Your task to perform on an android device: find which apps use the phone's location Image 0: 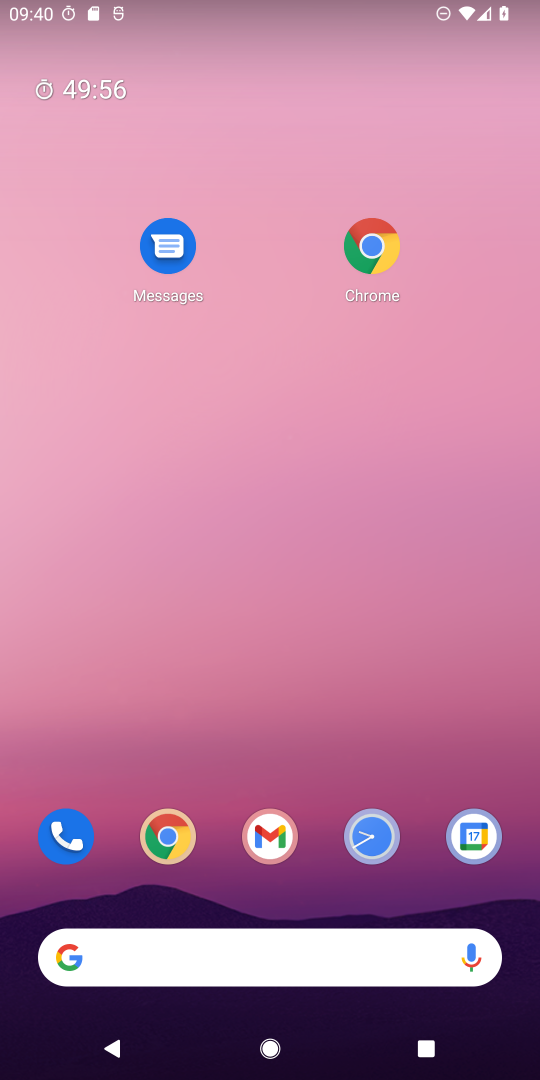
Step 0: drag from (259, 895) to (273, 305)
Your task to perform on an android device: find which apps use the phone's location Image 1: 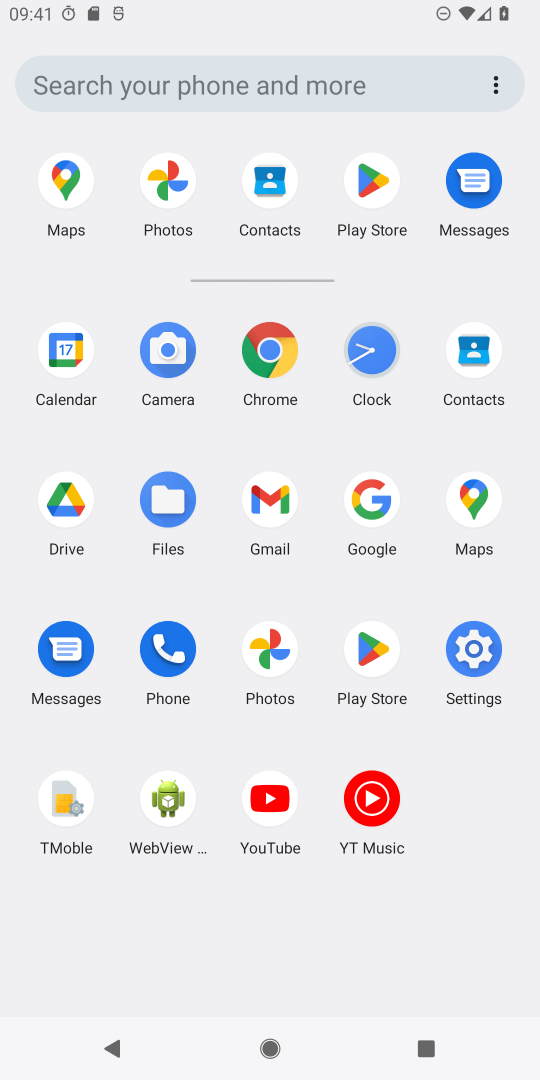
Step 1: click (480, 651)
Your task to perform on an android device: find which apps use the phone's location Image 2: 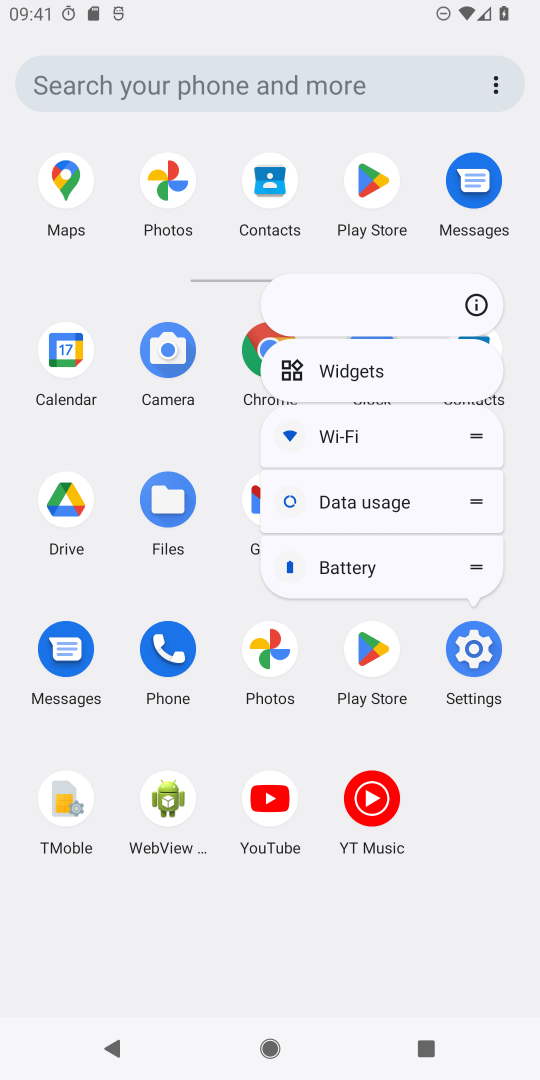
Step 2: click (480, 651)
Your task to perform on an android device: find which apps use the phone's location Image 3: 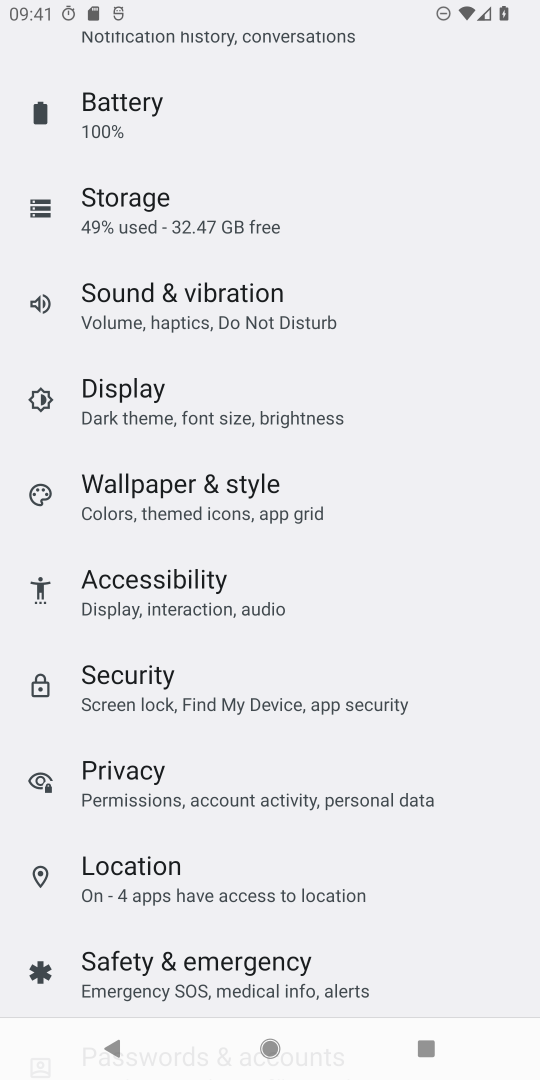
Step 3: click (208, 880)
Your task to perform on an android device: find which apps use the phone's location Image 4: 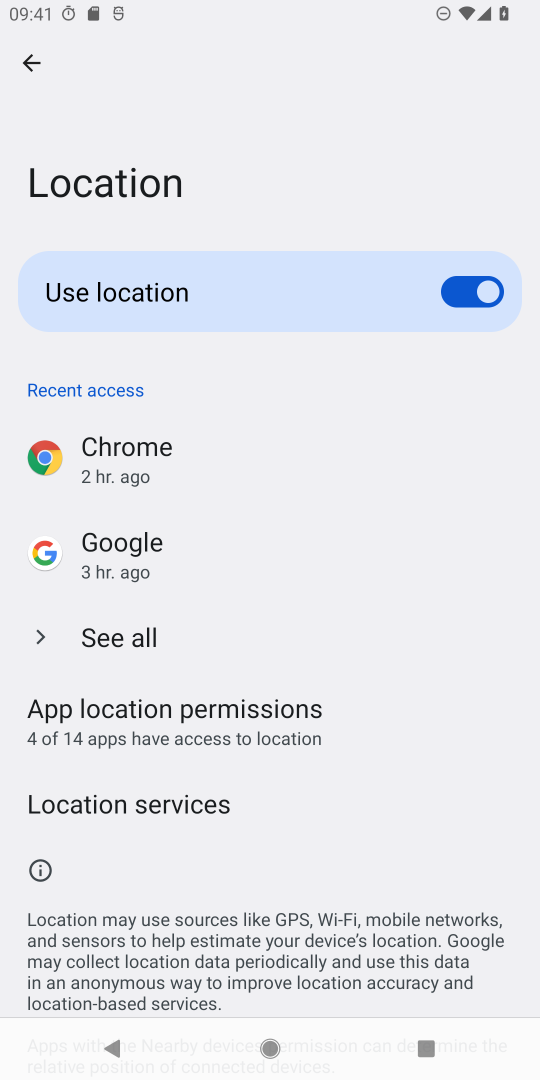
Step 4: task complete